Your task to perform on an android device: turn off data saver in the chrome app Image 0: 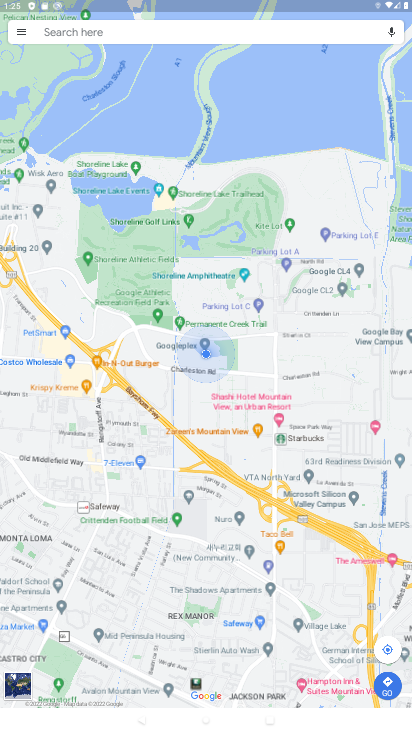
Step 0: press home button
Your task to perform on an android device: turn off data saver in the chrome app Image 1: 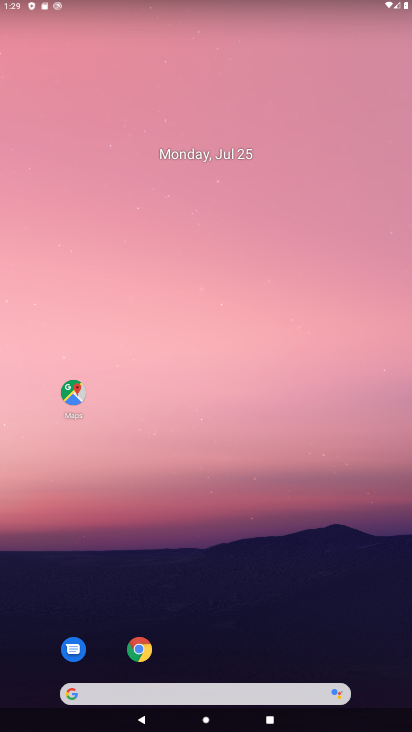
Step 1: click (131, 645)
Your task to perform on an android device: turn off data saver in the chrome app Image 2: 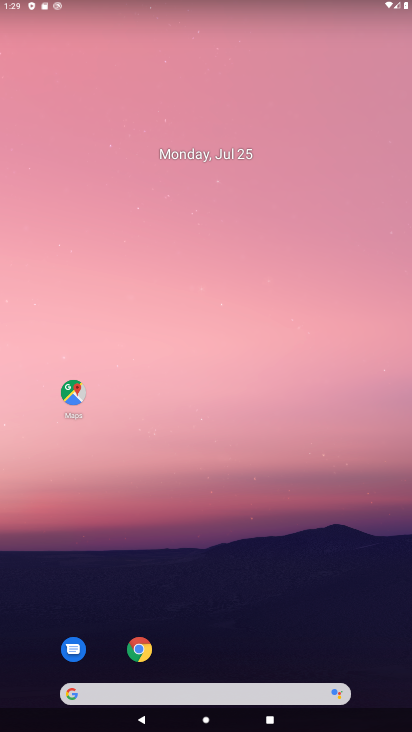
Step 2: click (131, 645)
Your task to perform on an android device: turn off data saver in the chrome app Image 3: 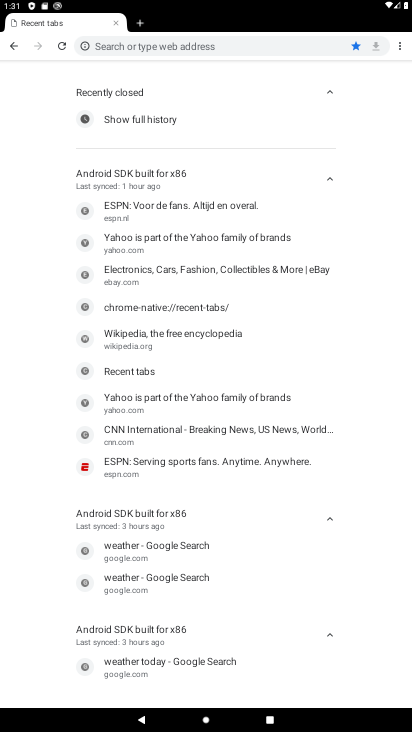
Step 3: click (394, 43)
Your task to perform on an android device: turn off data saver in the chrome app Image 4: 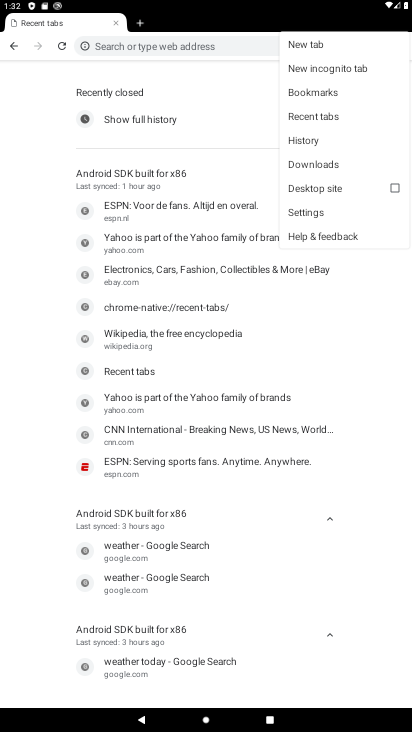
Step 4: click (308, 207)
Your task to perform on an android device: turn off data saver in the chrome app Image 5: 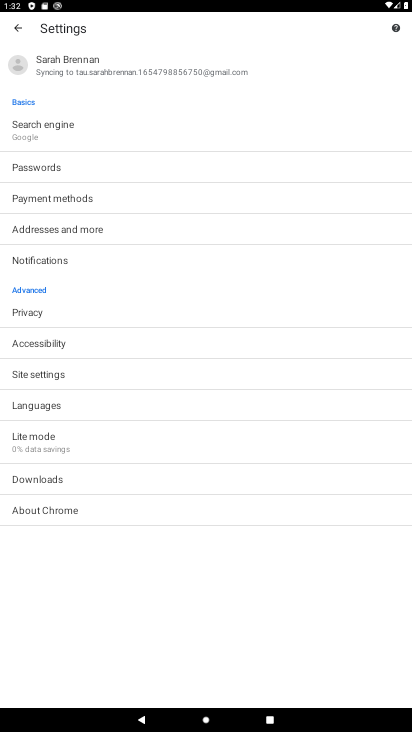
Step 5: click (70, 437)
Your task to perform on an android device: turn off data saver in the chrome app Image 6: 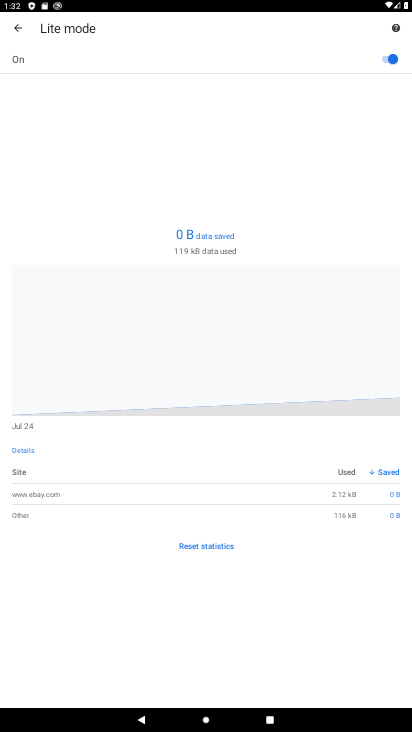
Step 6: click (394, 58)
Your task to perform on an android device: turn off data saver in the chrome app Image 7: 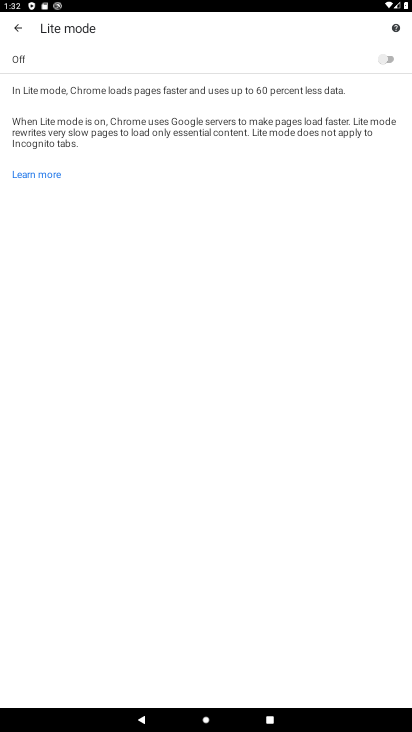
Step 7: task complete